Your task to perform on an android device: clear all cookies in the chrome app Image 0: 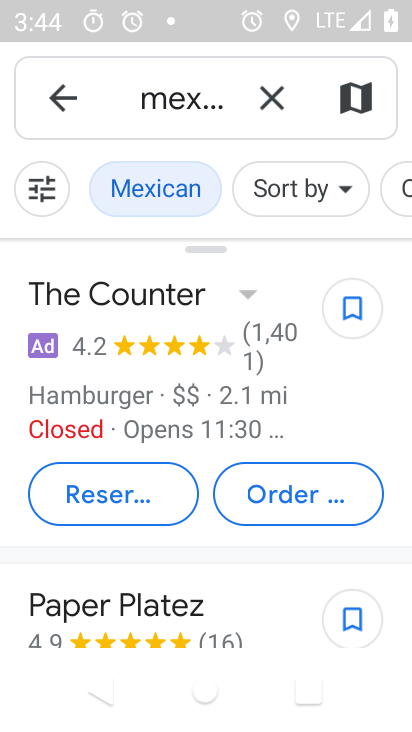
Step 0: press home button
Your task to perform on an android device: clear all cookies in the chrome app Image 1: 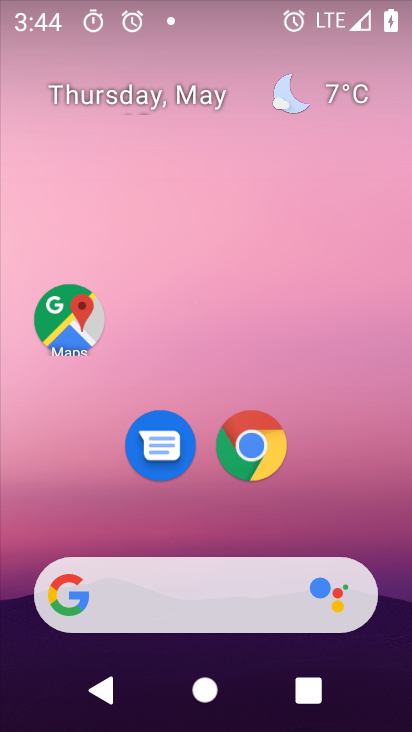
Step 1: click (262, 454)
Your task to perform on an android device: clear all cookies in the chrome app Image 2: 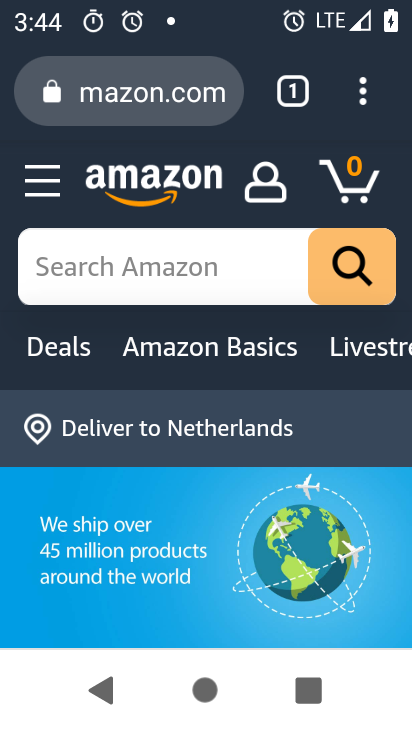
Step 2: click (366, 98)
Your task to perform on an android device: clear all cookies in the chrome app Image 3: 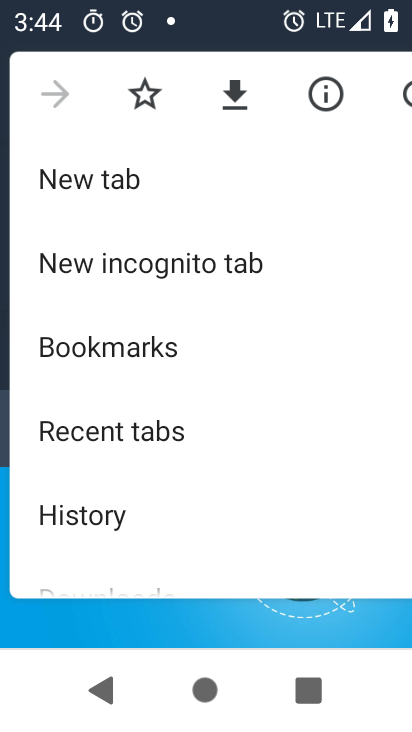
Step 3: drag from (259, 321) to (273, 88)
Your task to perform on an android device: clear all cookies in the chrome app Image 4: 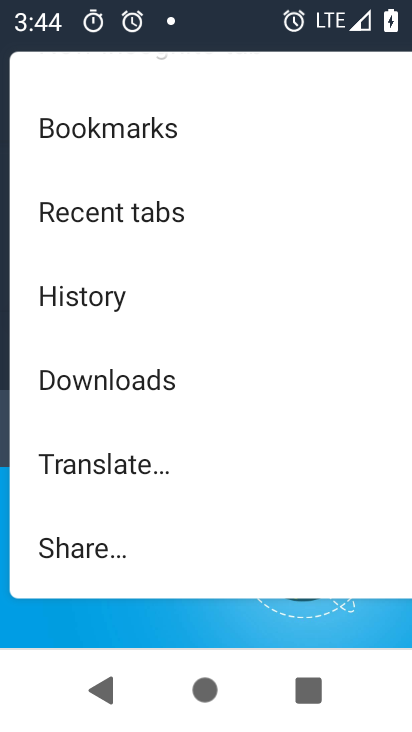
Step 4: drag from (312, 484) to (321, 123)
Your task to perform on an android device: clear all cookies in the chrome app Image 5: 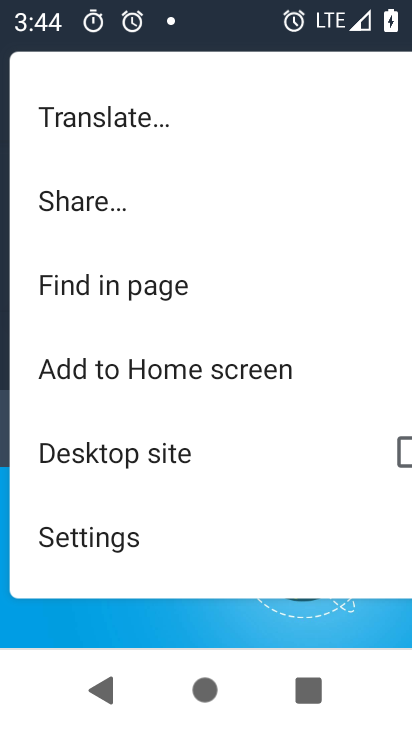
Step 5: click (95, 547)
Your task to perform on an android device: clear all cookies in the chrome app Image 6: 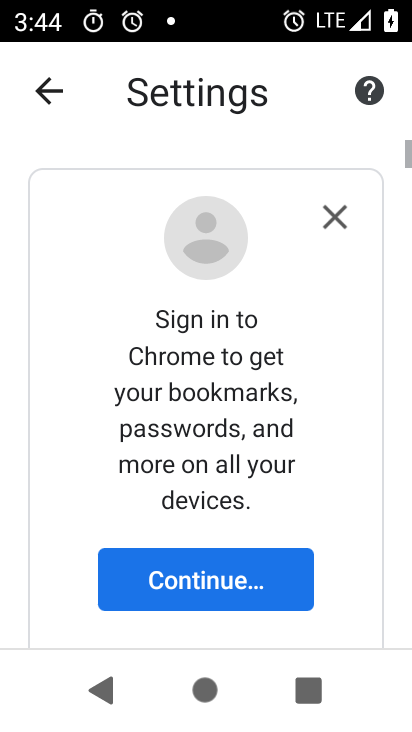
Step 6: drag from (345, 559) to (321, 187)
Your task to perform on an android device: clear all cookies in the chrome app Image 7: 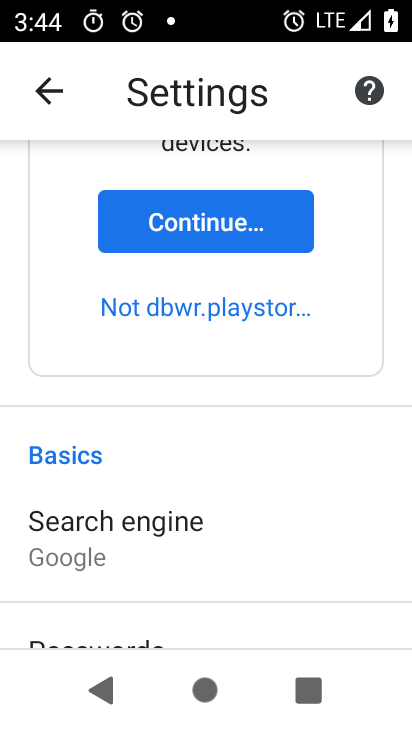
Step 7: click (290, 184)
Your task to perform on an android device: clear all cookies in the chrome app Image 8: 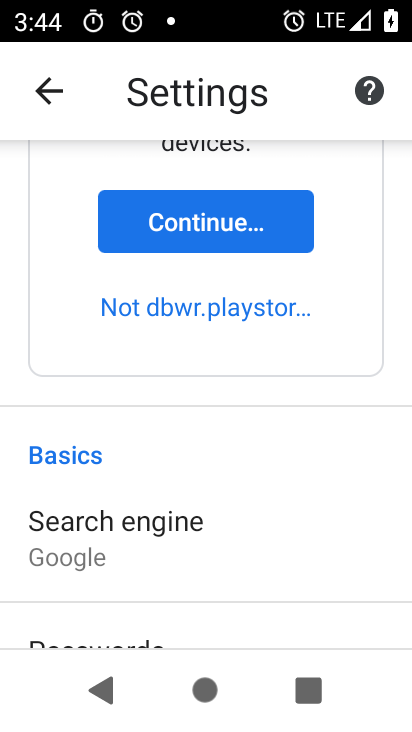
Step 8: drag from (304, 548) to (283, 228)
Your task to perform on an android device: clear all cookies in the chrome app Image 9: 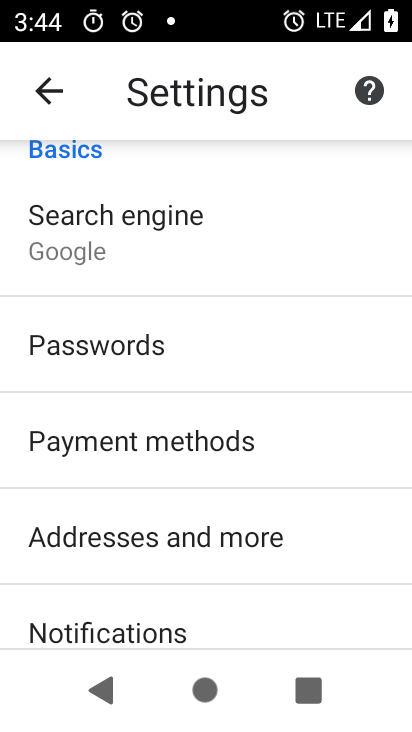
Step 9: drag from (246, 542) to (243, 271)
Your task to perform on an android device: clear all cookies in the chrome app Image 10: 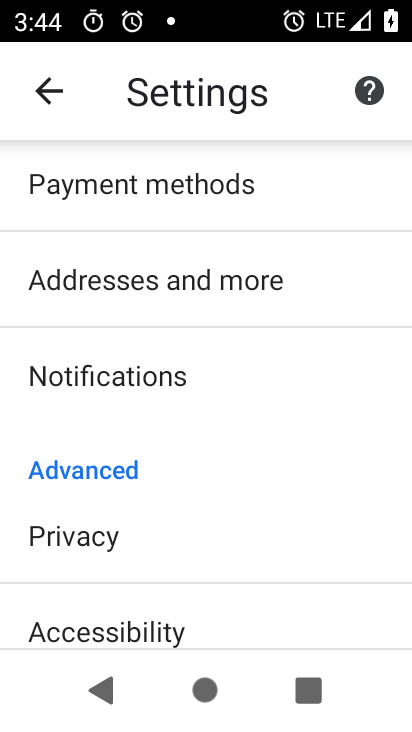
Step 10: click (71, 538)
Your task to perform on an android device: clear all cookies in the chrome app Image 11: 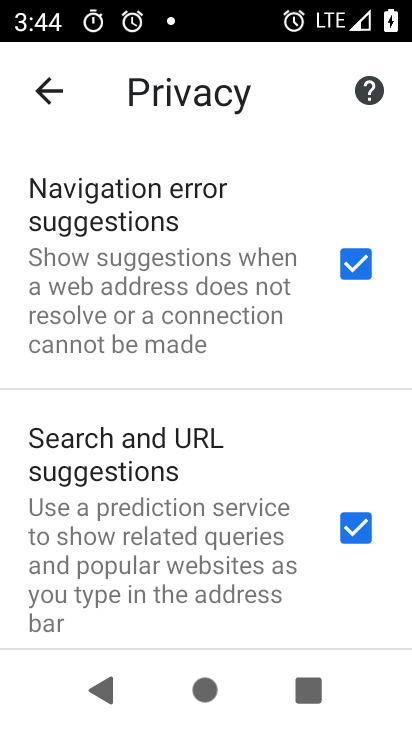
Step 11: drag from (176, 547) to (197, 157)
Your task to perform on an android device: clear all cookies in the chrome app Image 12: 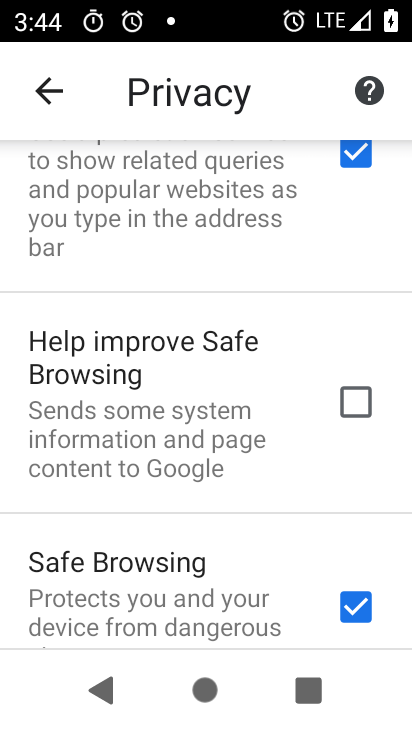
Step 12: drag from (143, 517) to (159, 258)
Your task to perform on an android device: clear all cookies in the chrome app Image 13: 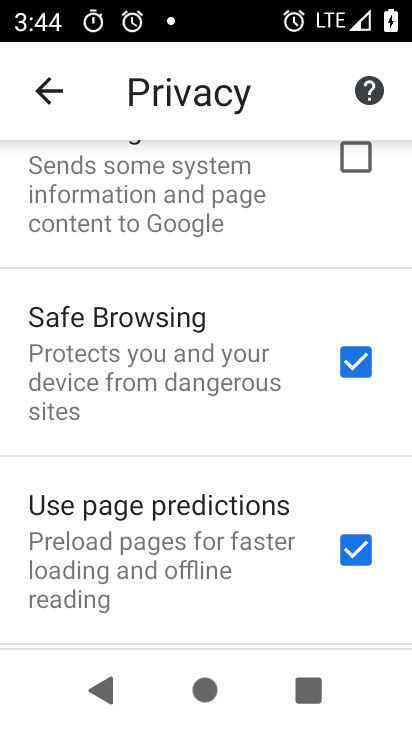
Step 13: drag from (158, 527) to (170, 184)
Your task to perform on an android device: clear all cookies in the chrome app Image 14: 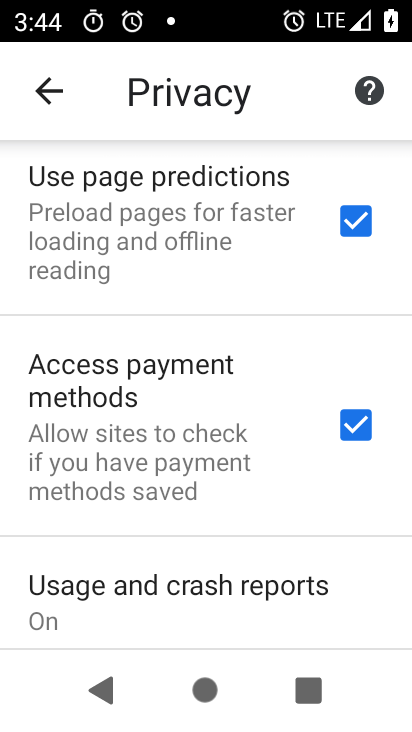
Step 14: drag from (151, 525) to (160, 194)
Your task to perform on an android device: clear all cookies in the chrome app Image 15: 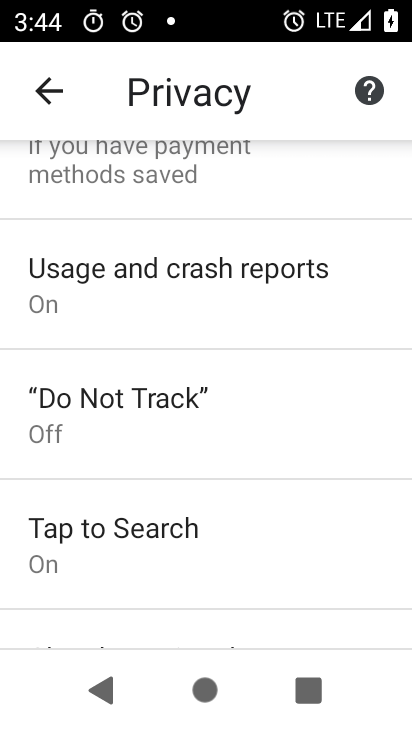
Step 15: drag from (139, 551) to (147, 219)
Your task to perform on an android device: clear all cookies in the chrome app Image 16: 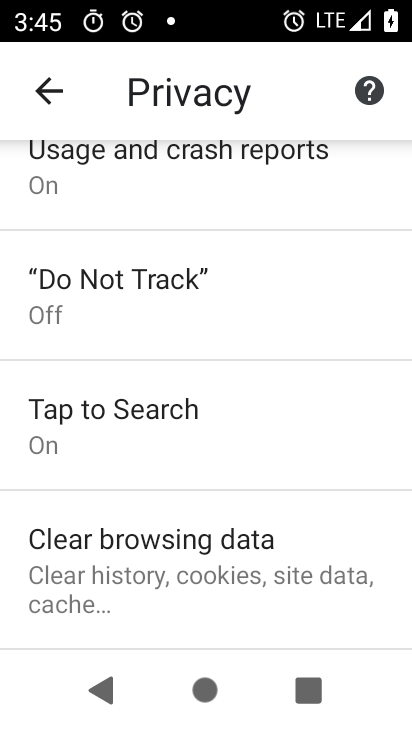
Step 16: click (120, 541)
Your task to perform on an android device: clear all cookies in the chrome app Image 17: 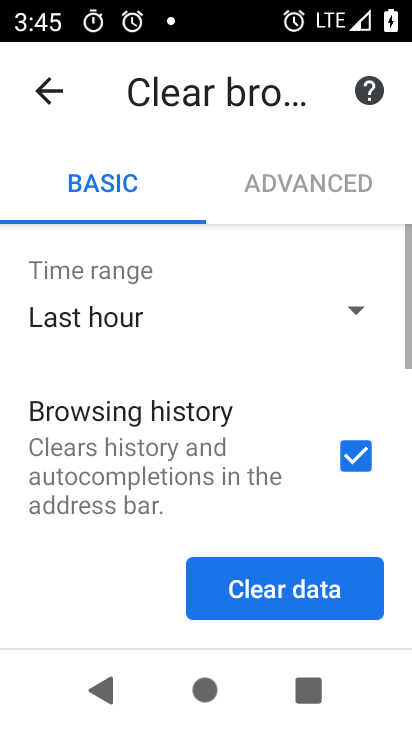
Step 17: click (349, 451)
Your task to perform on an android device: clear all cookies in the chrome app Image 18: 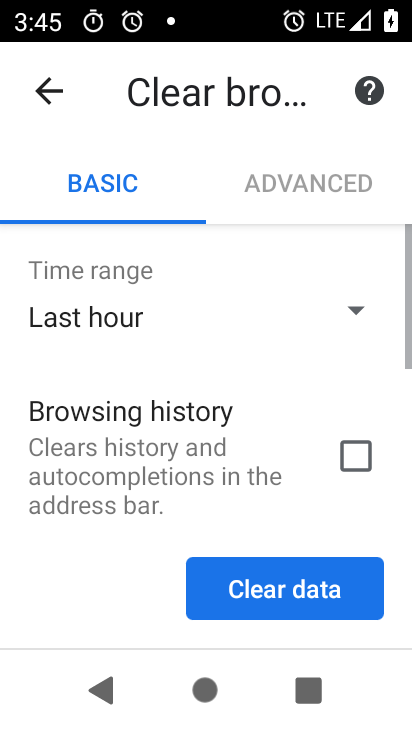
Step 18: drag from (154, 435) to (188, 94)
Your task to perform on an android device: clear all cookies in the chrome app Image 19: 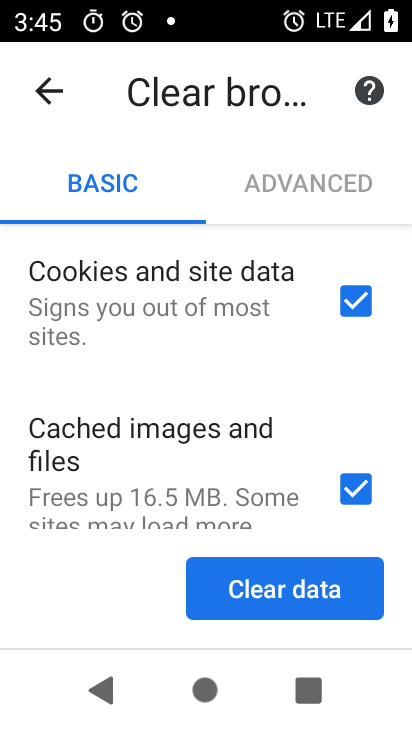
Step 19: click (348, 479)
Your task to perform on an android device: clear all cookies in the chrome app Image 20: 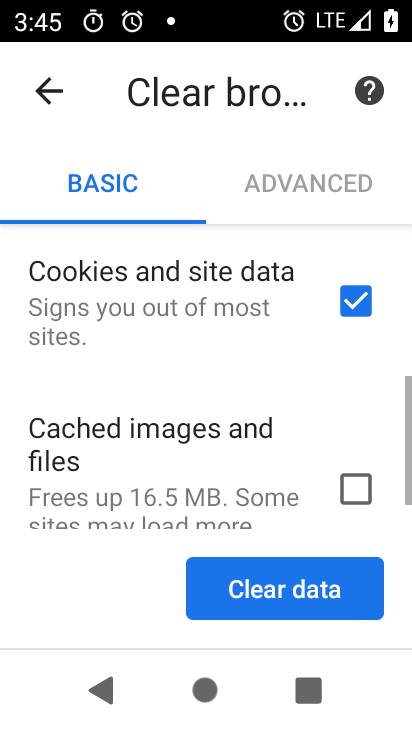
Step 20: drag from (135, 481) to (138, 236)
Your task to perform on an android device: clear all cookies in the chrome app Image 21: 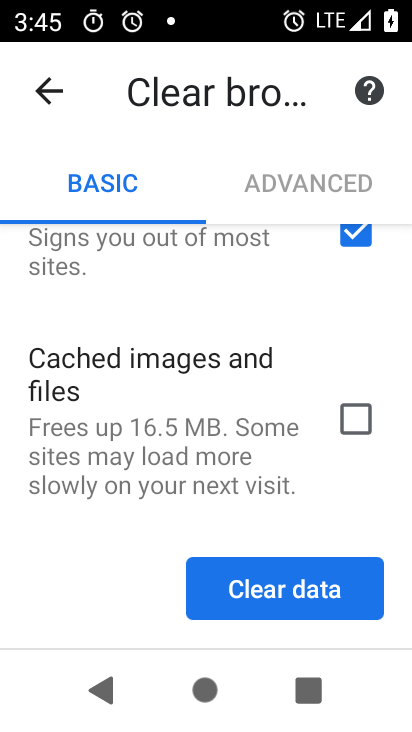
Step 21: drag from (169, 328) to (156, 476)
Your task to perform on an android device: clear all cookies in the chrome app Image 22: 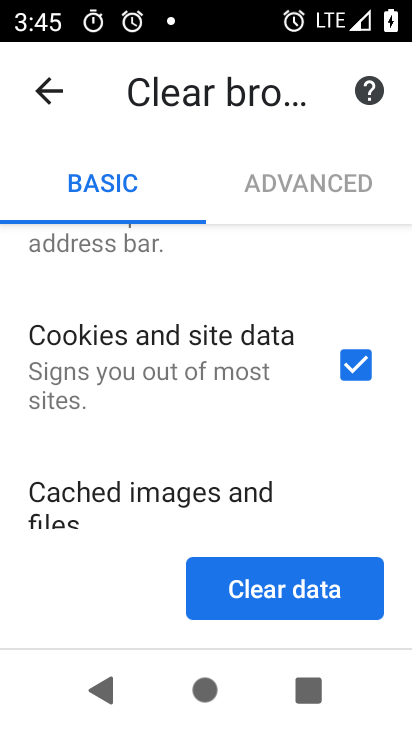
Step 22: click (328, 578)
Your task to perform on an android device: clear all cookies in the chrome app Image 23: 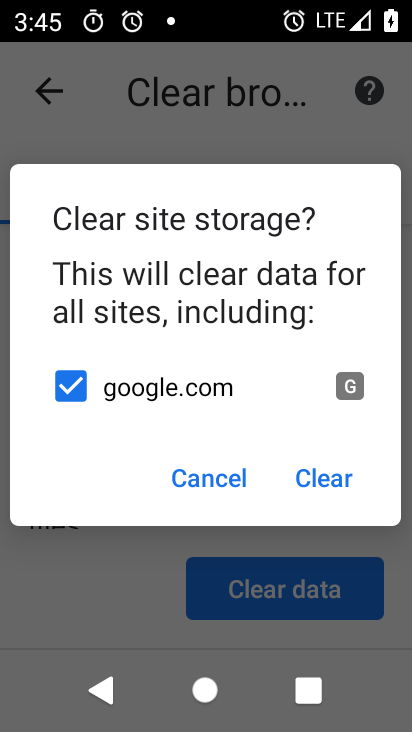
Step 23: click (349, 484)
Your task to perform on an android device: clear all cookies in the chrome app Image 24: 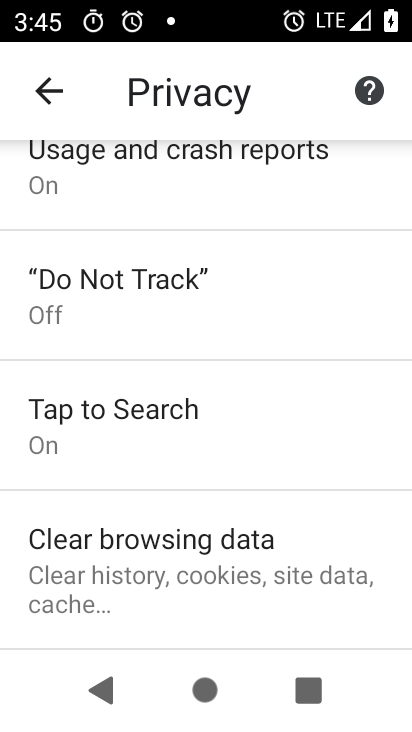
Step 24: task complete